Your task to perform on an android device: turn off improve location accuracy Image 0: 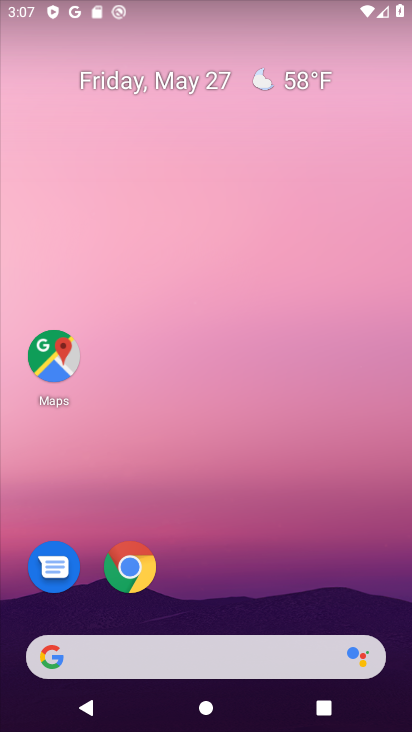
Step 0: drag from (222, 612) to (275, 39)
Your task to perform on an android device: turn off improve location accuracy Image 1: 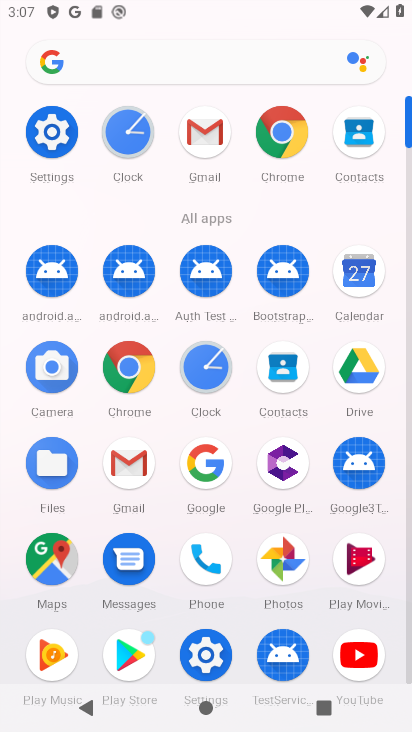
Step 1: click (205, 654)
Your task to perform on an android device: turn off improve location accuracy Image 2: 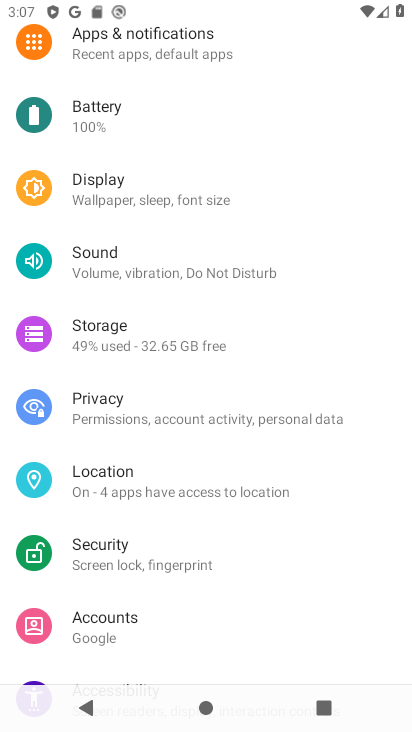
Step 2: click (144, 479)
Your task to perform on an android device: turn off improve location accuracy Image 3: 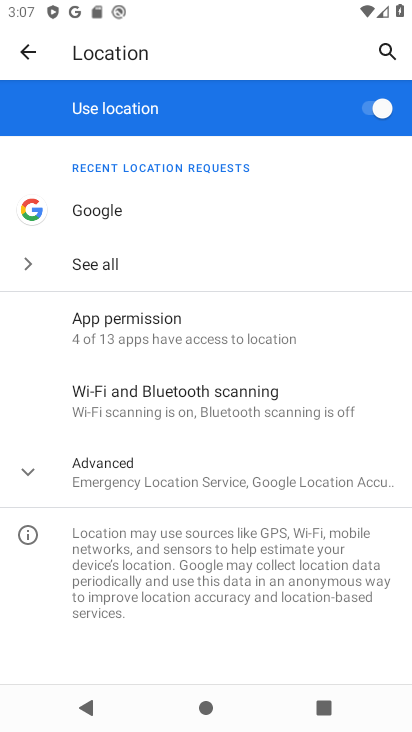
Step 3: click (22, 468)
Your task to perform on an android device: turn off improve location accuracy Image 4: 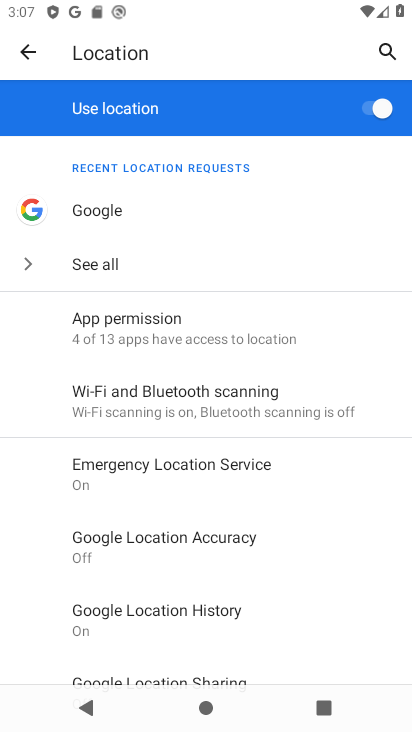
Step 4: click (153, 544)
Your task to perform on an android device: turn off improve location accuracy Image 5: 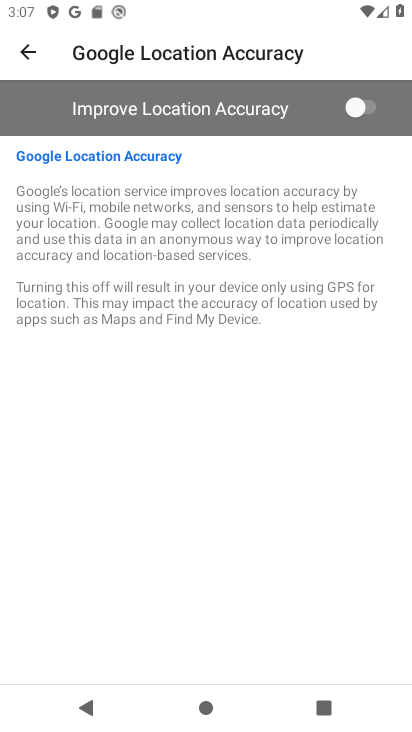
Step 5: task complete